Your task to perform on an android device: What's the weather today? Image 0: 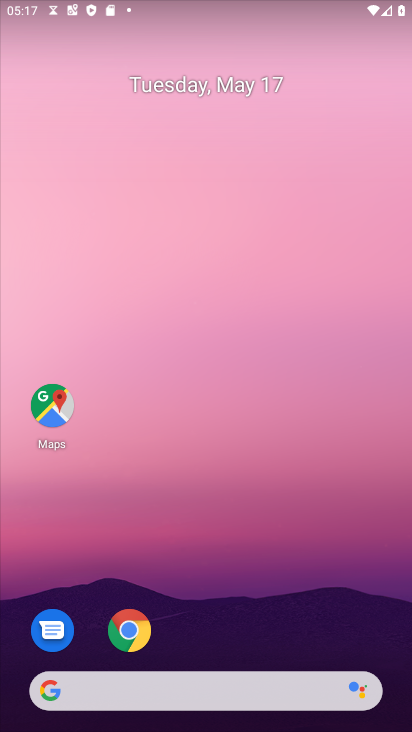
Step 0: click (140, 620)
Your task to perform on an android device: What's the weather today? Image 1: 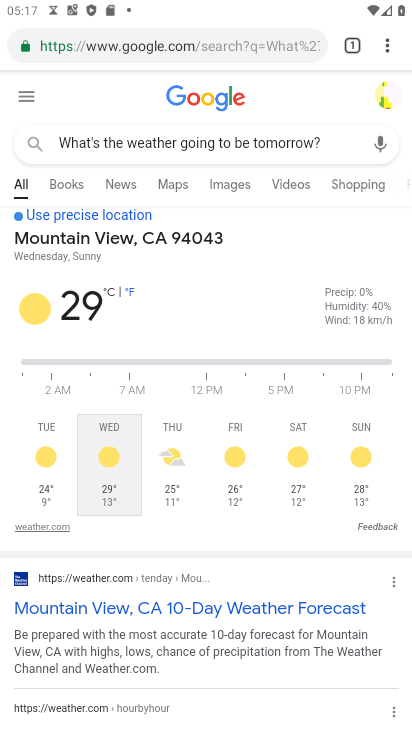
Step 1: click (248, 52)
Your task to perform on an android device: What's the weather today? Image 2: 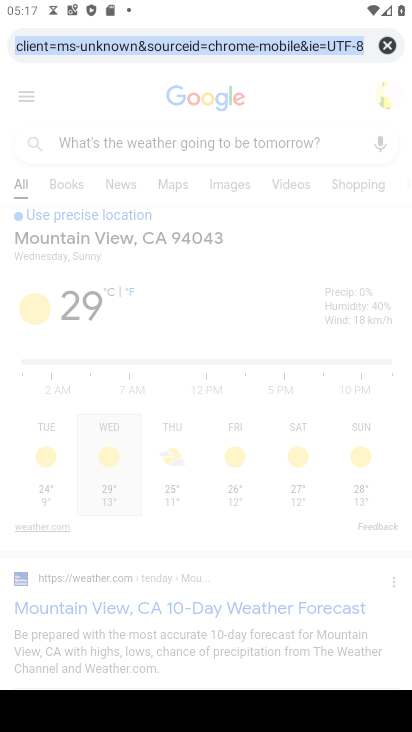
Step 2: click (385, 48)
Your task to perform on an android device: What's the weather today? Image 3: 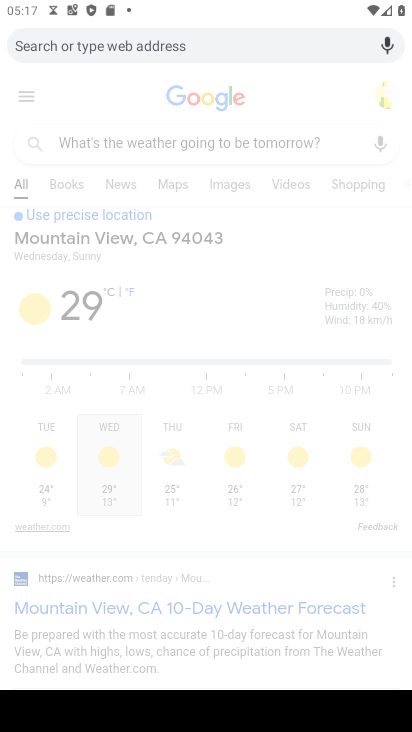
Step 3: type "What's the weather today?"
Your task to perform on an android device: What's the weather today? Image 4: 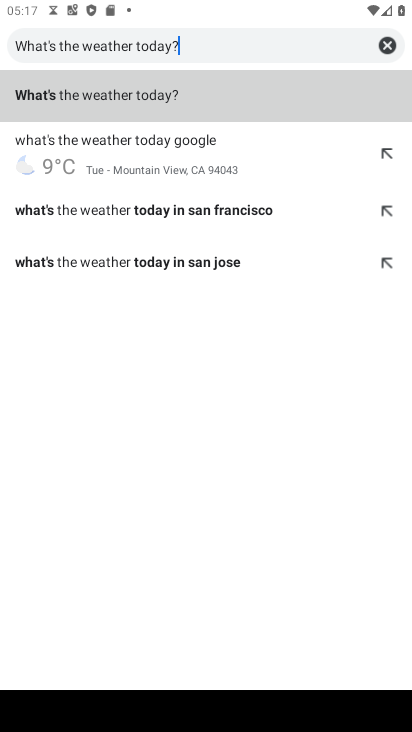
Step 4: click (111, 92)
Your task to perform on an android device: What's the weather today? Image 5: 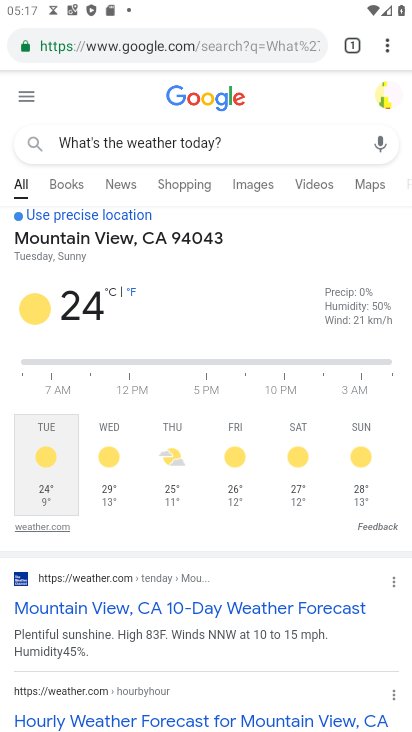
Step 5: task complete